Your task to perform on an android device: What's on my calendar tomorrow? Image 0: 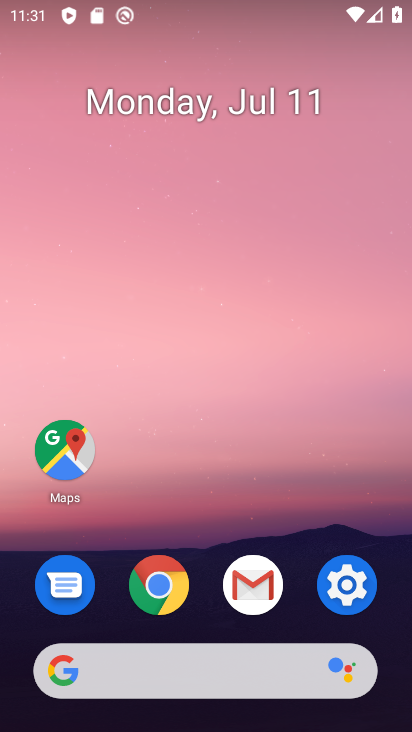
Step 0: drag from (251, 714) to (180, 115)
Your task to perform on an android device: What's on my calendar tomorrow? Image 1: 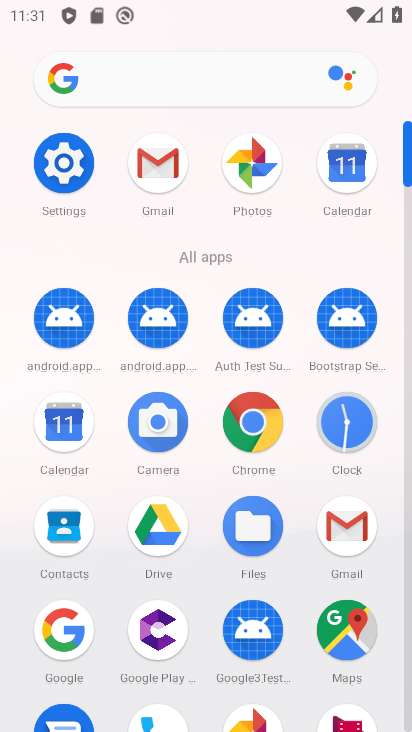
Step 1: click (57, 414)
Your task to perform on an android device: What's on my calendar tomorrow? Image 2: 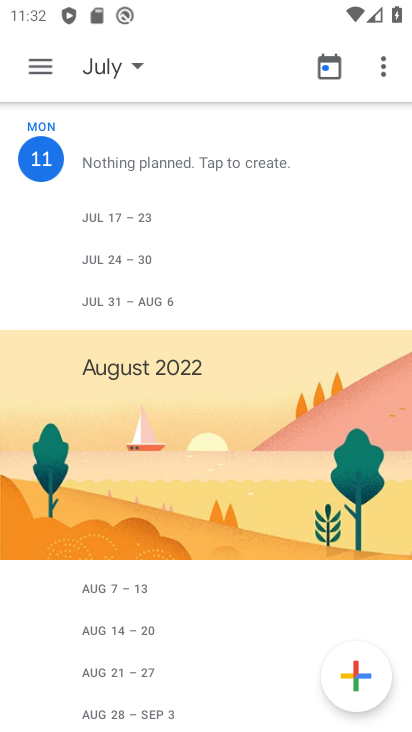
Step 2: click (35, 75)
Your task to perform on an android device: What's on my calendar tomorrow? Image 3: 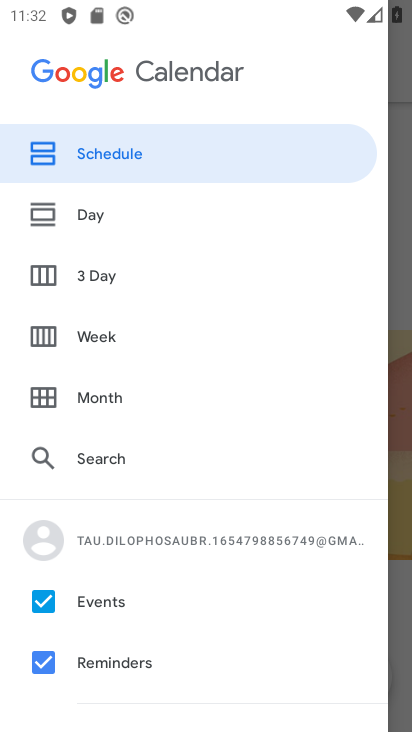
Step 3: click (99, 392)
Your task to perform on an android device: What's on my calendar tomorrow? Image 4: 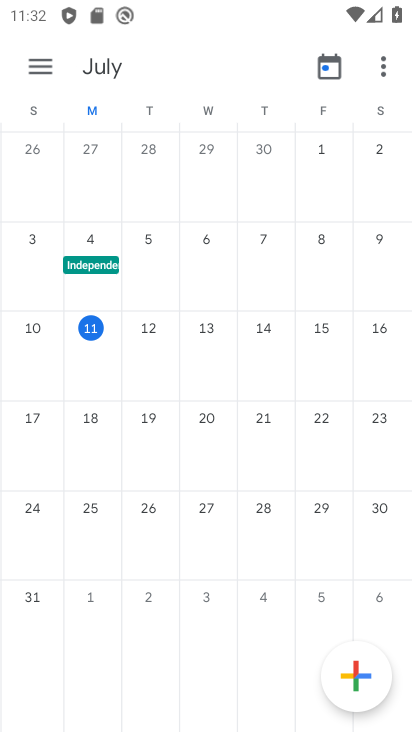
Step 4: click (158, 340)
Your task to perform on an android device: What's on my calendar tomorrow? Image 5: 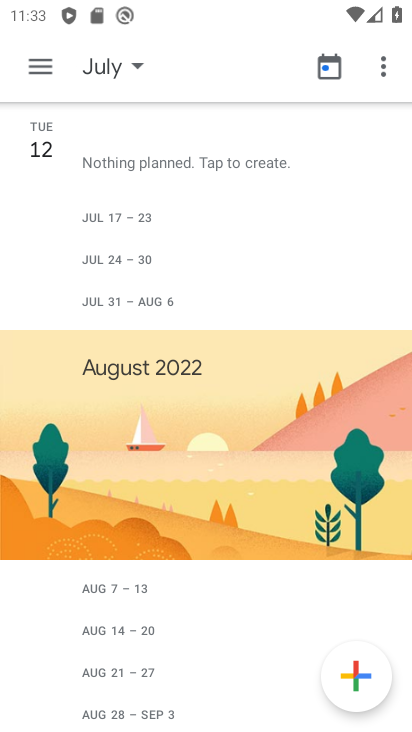
Step 5: task complete